Your task to perform on an android device: open app "Booking.com: Hotels and more" (install if not already installed) Image 0: 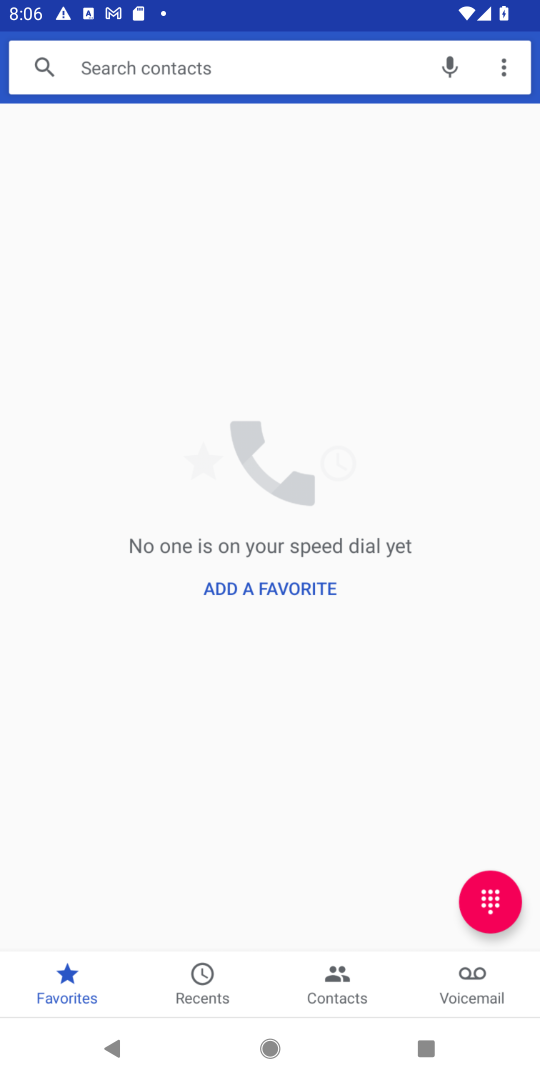
Step 0: press home button
Your task to perform on an android device: open app "Booking.com: Hotels and more" (install if not already installed) Image 1: 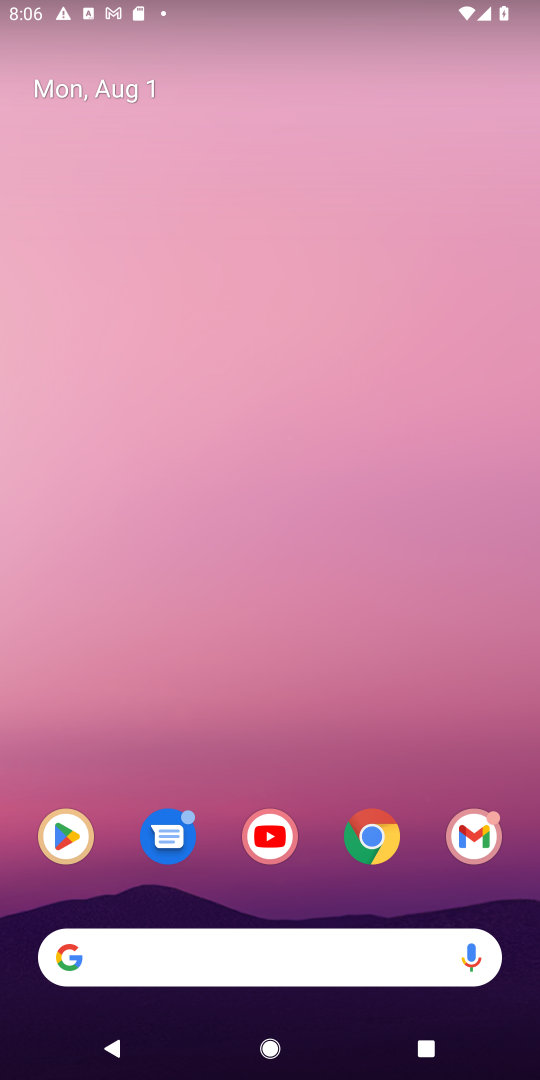
Step 1: click (62, 837)
Your task to perform on an android device: open app "Booking.com: Hotels and more" (install if not already installed) Image 2: 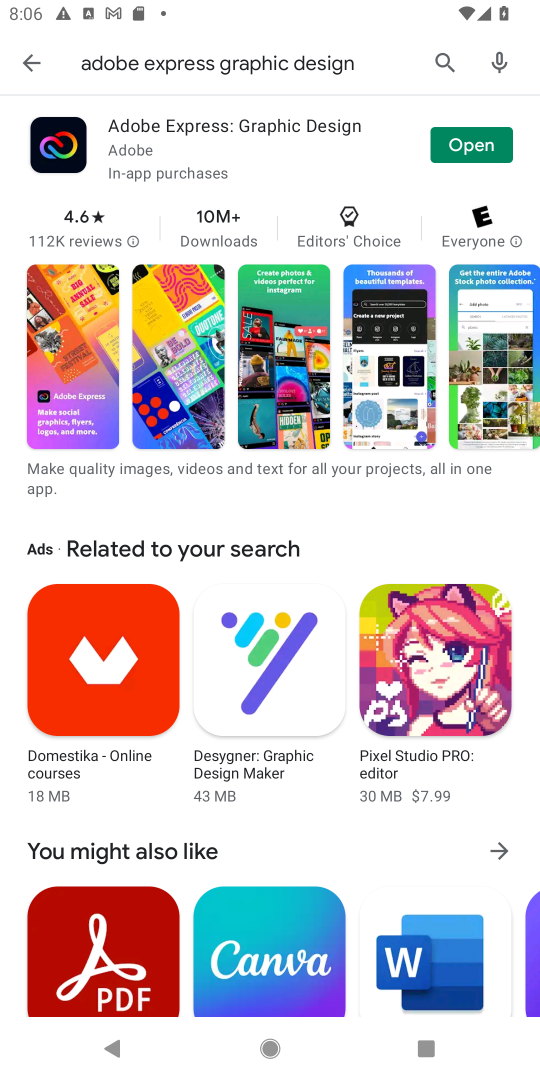
Step 2: click (445, 53)
Your task to perform on an android device: open app "Booking.com: Hotels and more" (install if not already installed) Image 3: 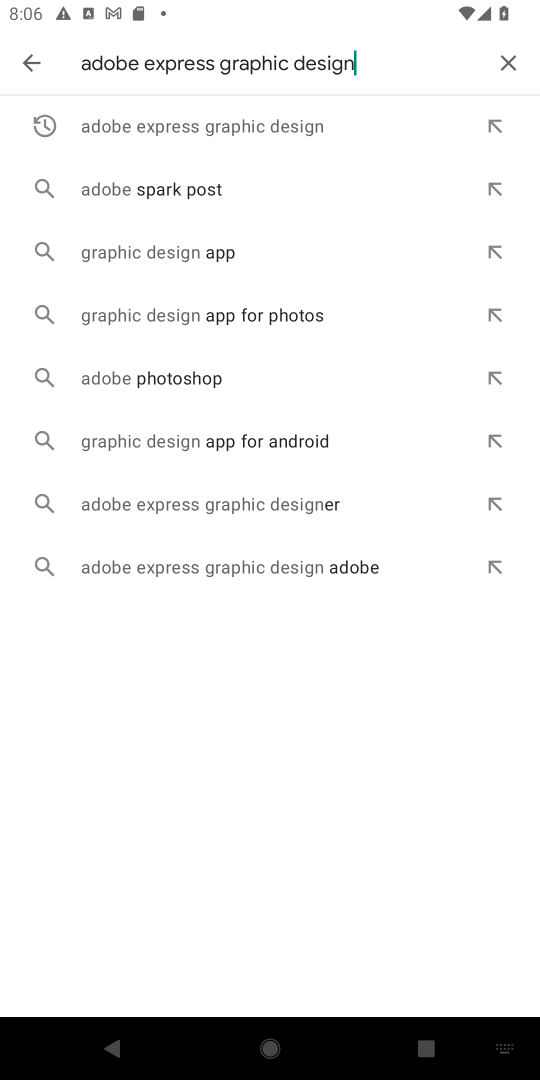
Step 3: click (501, 55)
Your task to perform on an android device: open app "Booking.com: Hotels and more" (install if not already installed) Image 4: 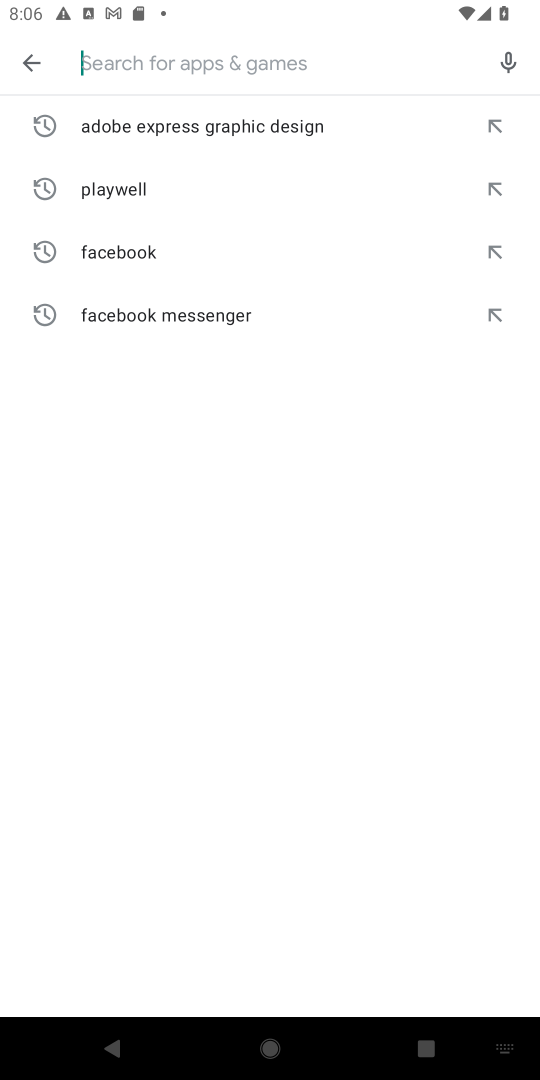
Step 4: type "Booking.com: Hotels and more"
Your task to perform on an android device: open app "Booking.com: Hotels and more" (install if not already installed) Image 5: 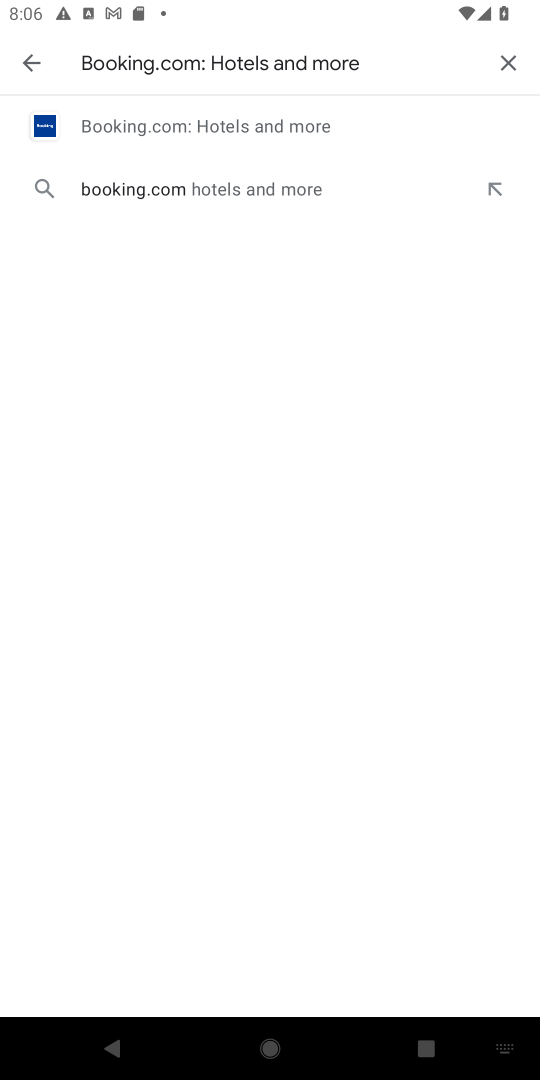
Step 5: click (230, 128)
Your task to perform on an android device: open app "Booking.com: Hotels and more" (install if not already installed) Image 6: 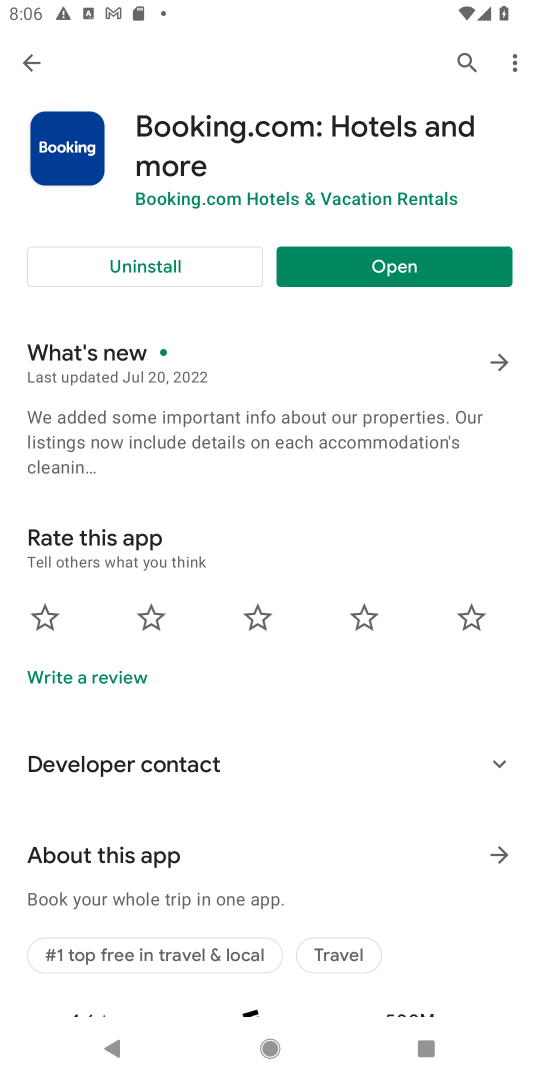
Step 6: click (476, 275)
Your task to perform on an android device: open app "Booking.com: Hotels and more" (install if not already installed) Image 7: 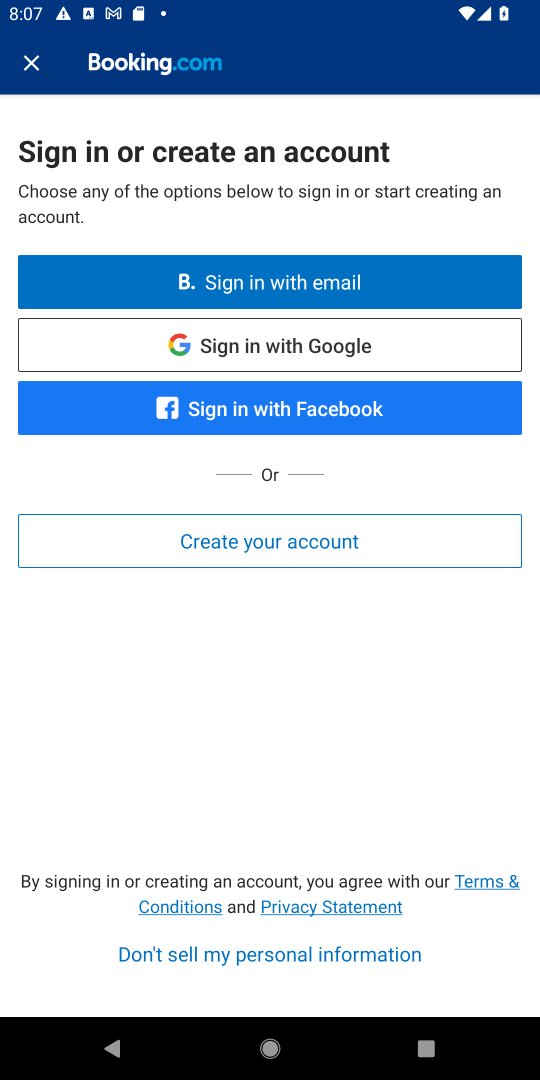
Step 7: task complete